Your task to perform on an android device: Open Wikipedia Image 0: 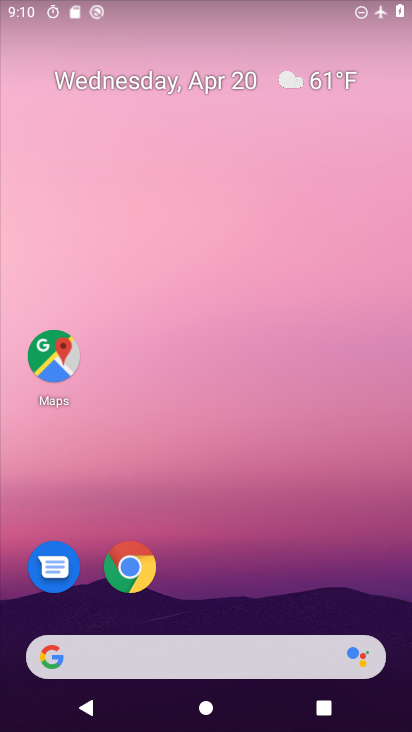
Step 0: click (138, 569)
Your task to perform on an android device: Open Wikipedia Image 1: 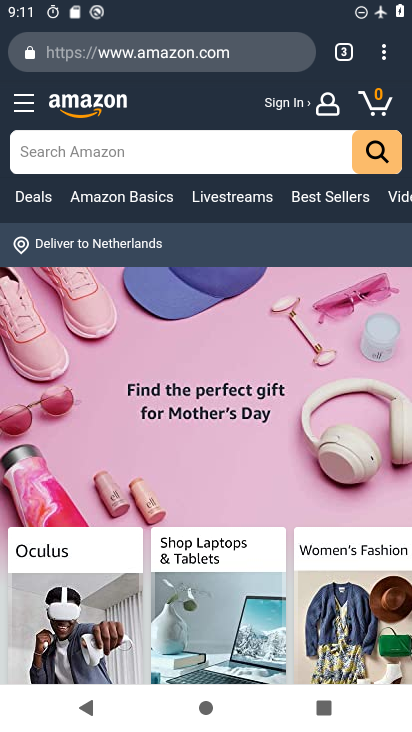
Step 1: click (247, 52)
Your task to perform on an android device: Open Wikipedia Image 2: 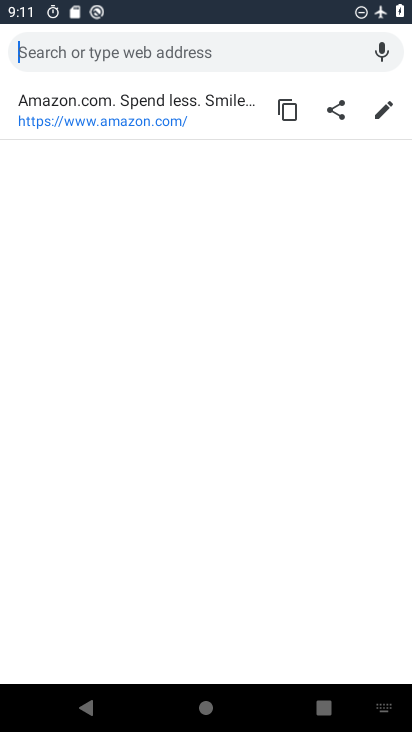
Step 2: type "wikipedia"
Your task to perform on an android device: Open Wikipedia Image 3: 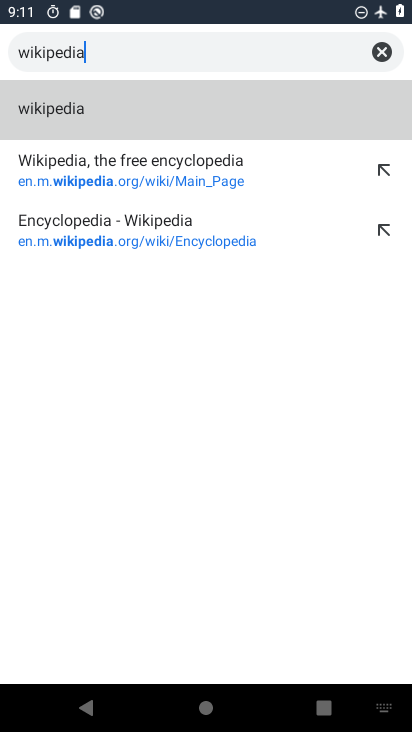
Step 3: click (63, 113)
Your task to perform on an android device: Open Wikipedia Image 4: 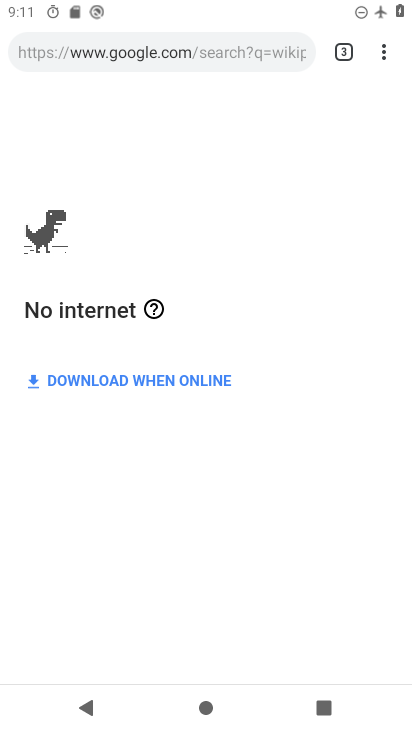
Step 4: task complete